Your task to perform on an android device: Open maps Image 0: 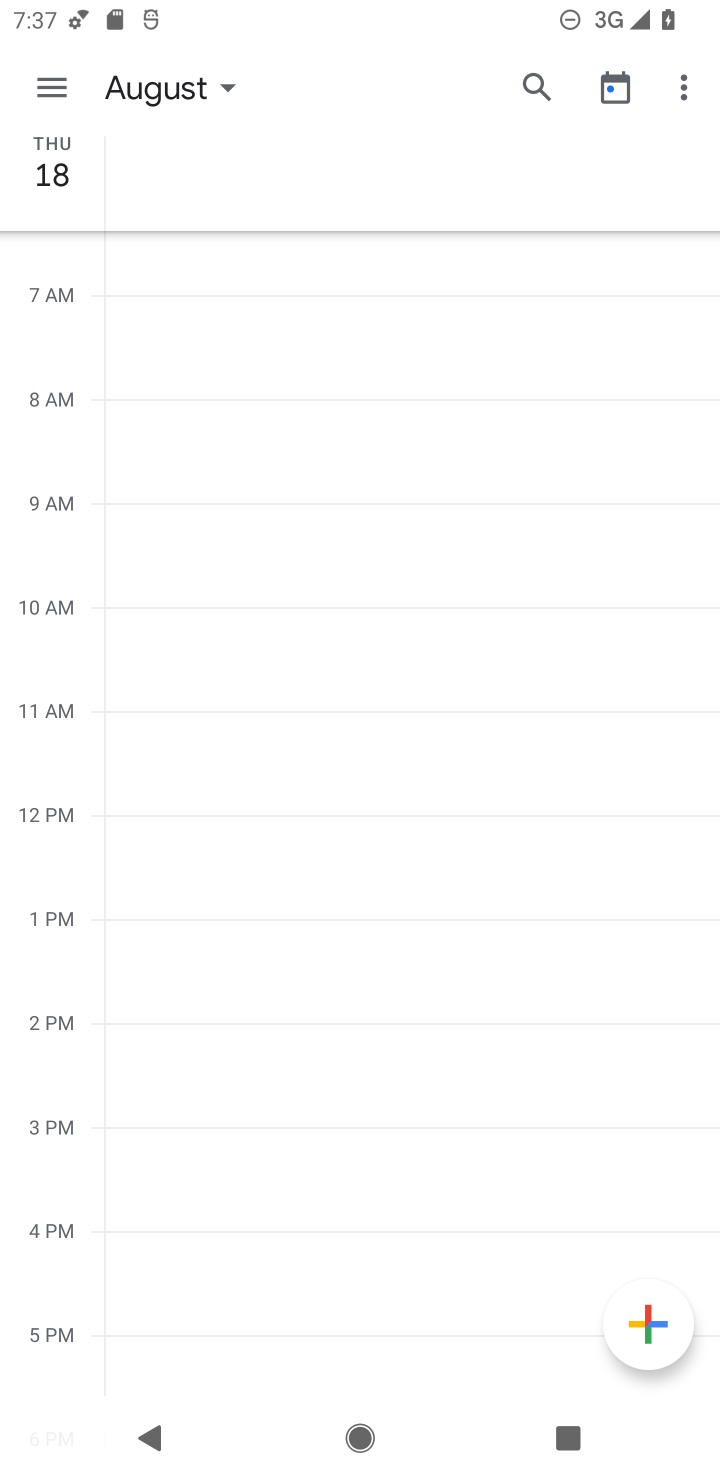
Step 0: press home button
Your task to perform on an android device: Open maps Image 1: 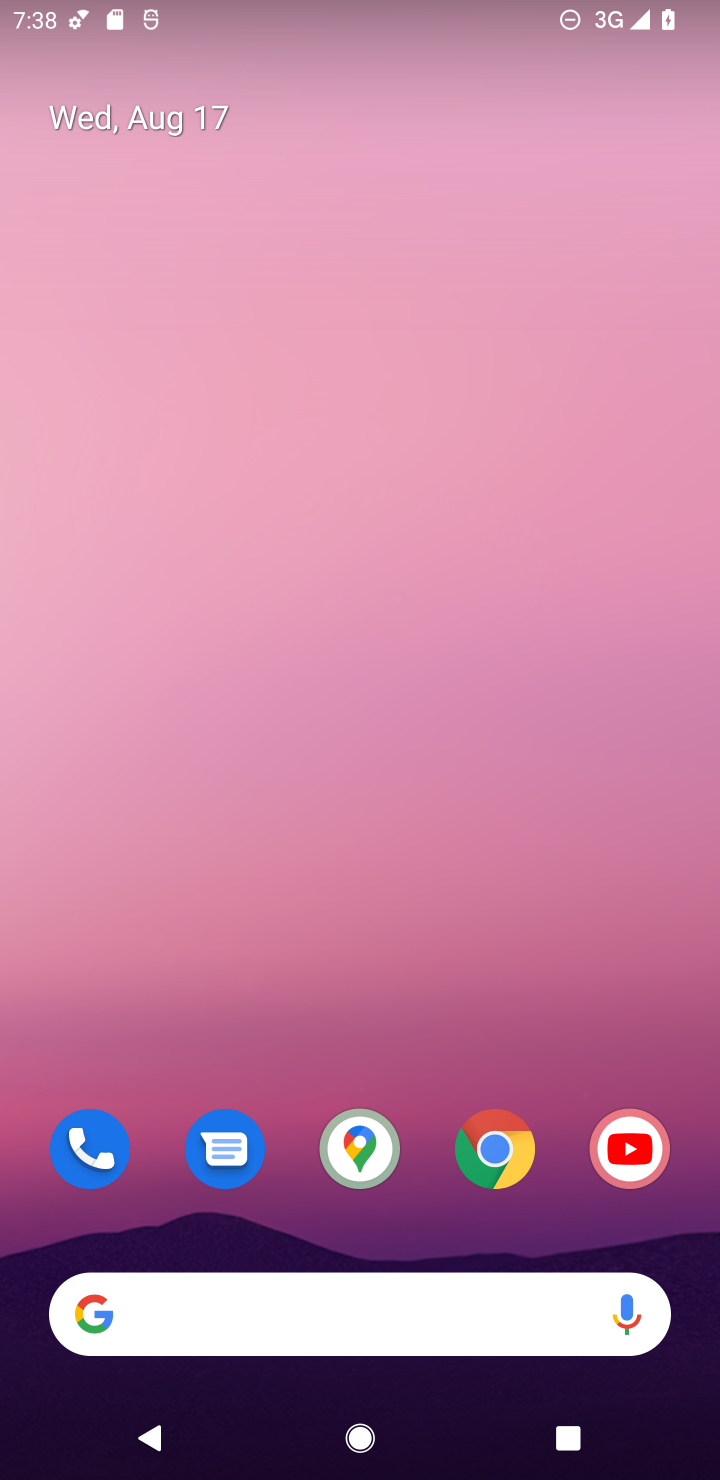
Step 1: click (350, 1143)
Your task to perform on an android device: Open maps Image 2: 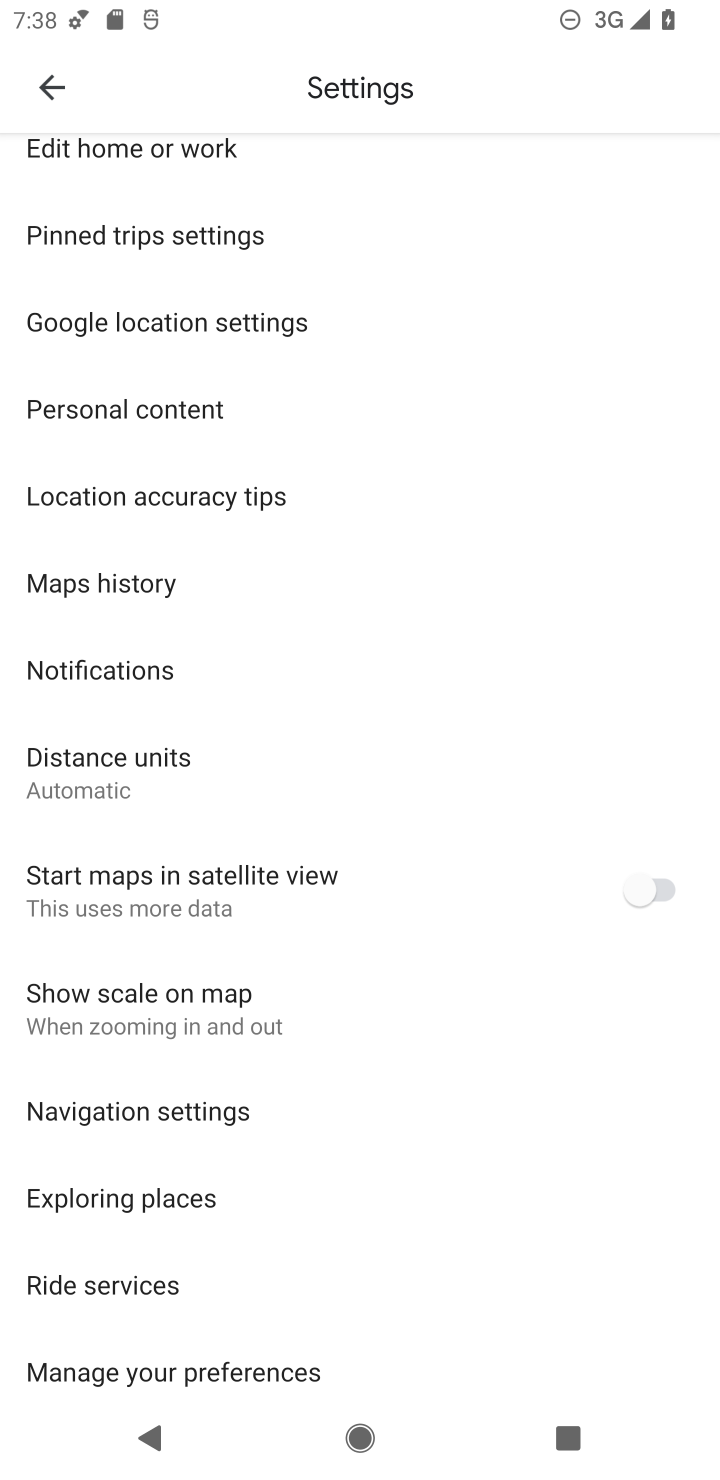
Step 2: click (71, 79)
Your task to perform on an android device: Open maps Image 3: 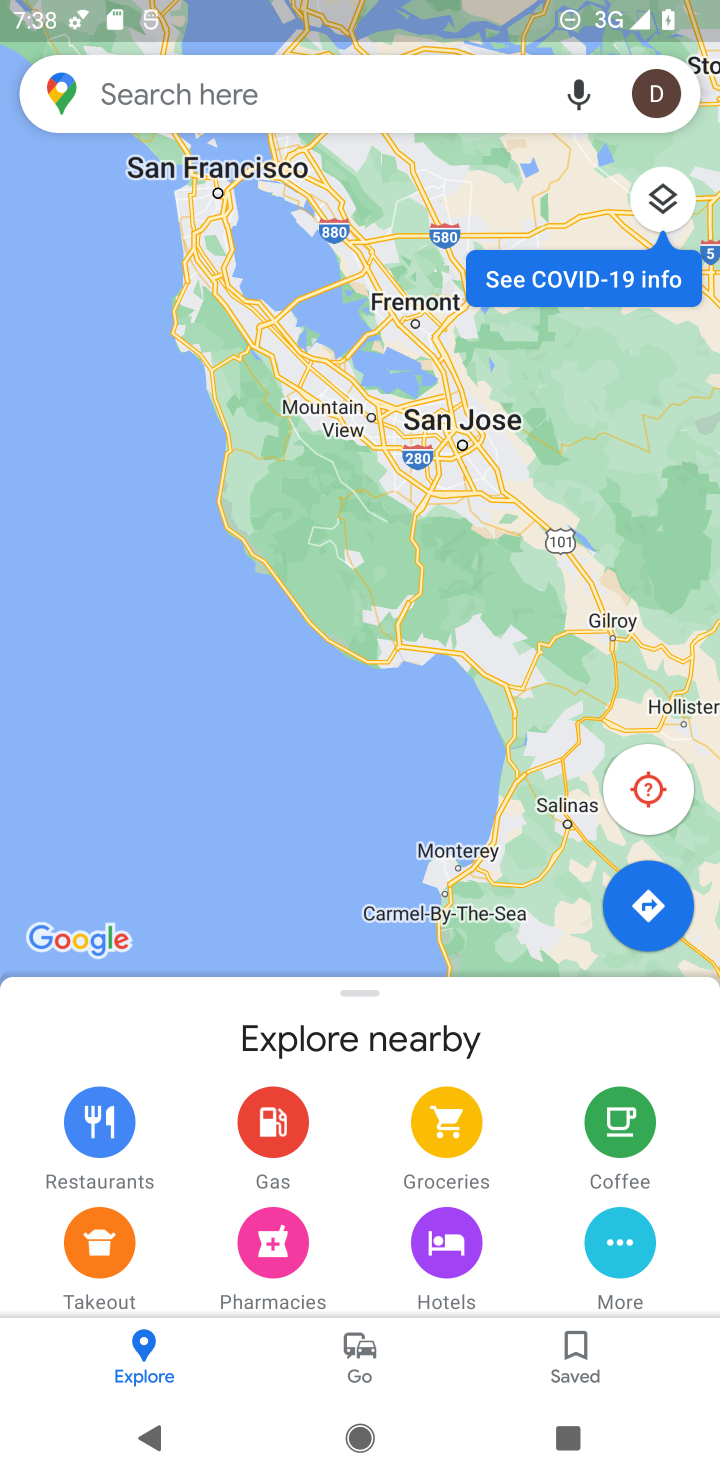
Step 3: task complete